Your task to perform on an android device: uninstall "Mercado Libre" Image 0: 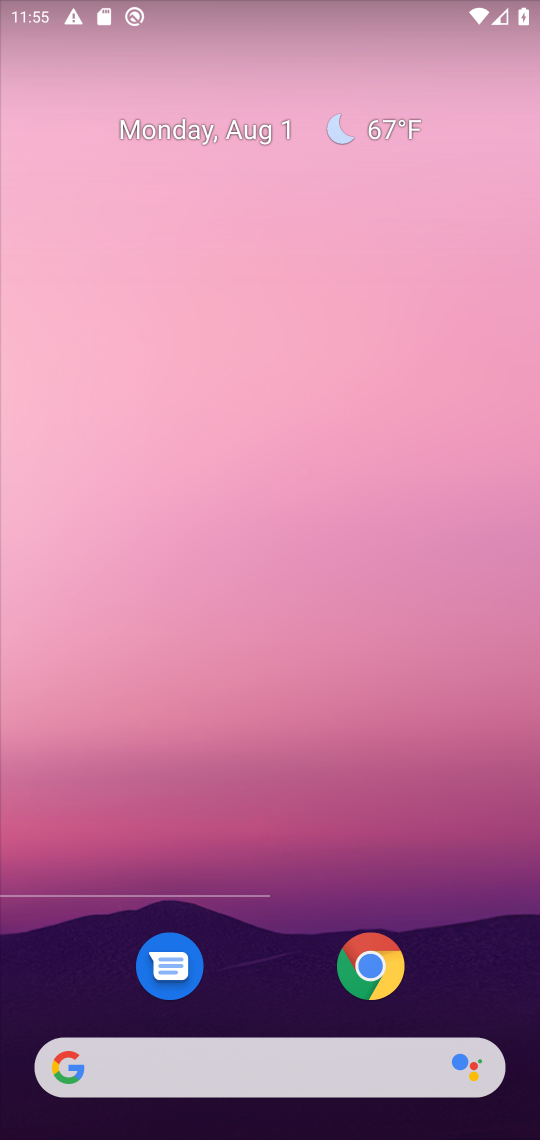
Step 0: press home button
Your task to perform on an android device: uninstall "Mercado Libre" Image 1: 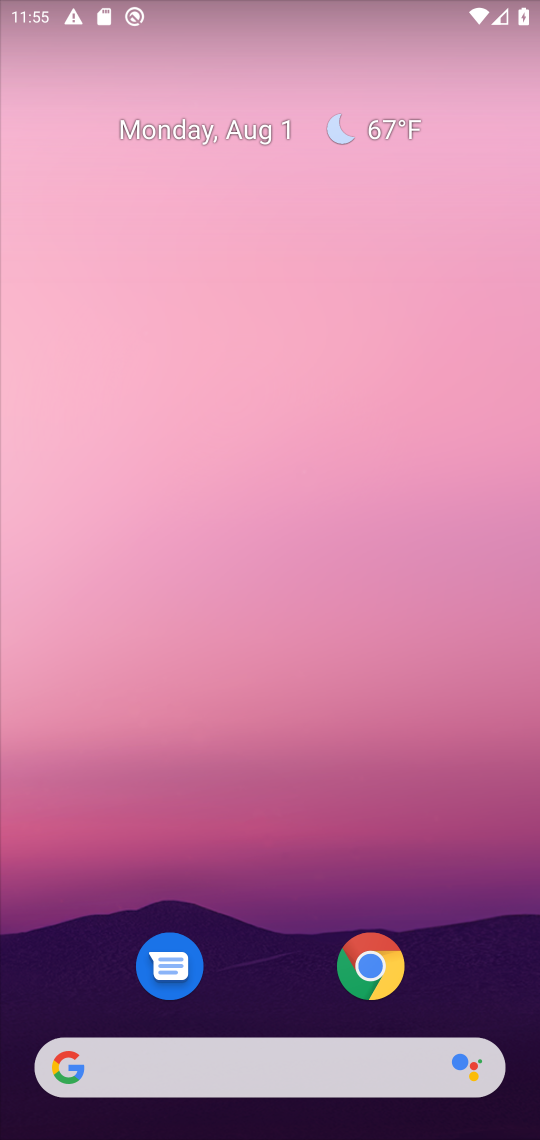
Step 1: drag from (448, 967) to (464, 100)
Your task to perform on an android device: uninstall "Mercado Libre" Image 2: 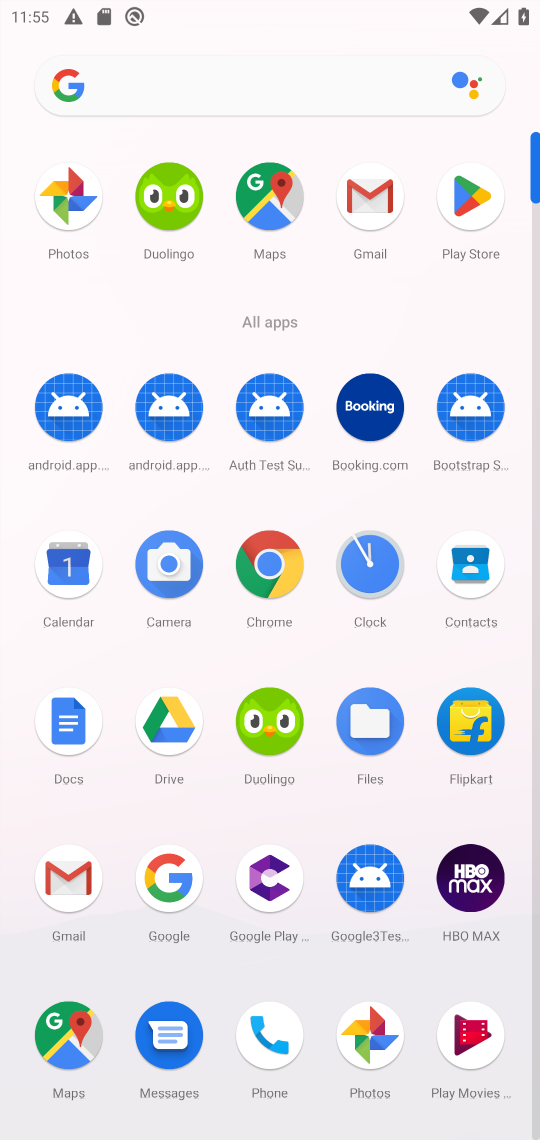
Step 2: click (462, 205)
Your task to perform on an android device: uninstall "Mercado Libre" Image 3: 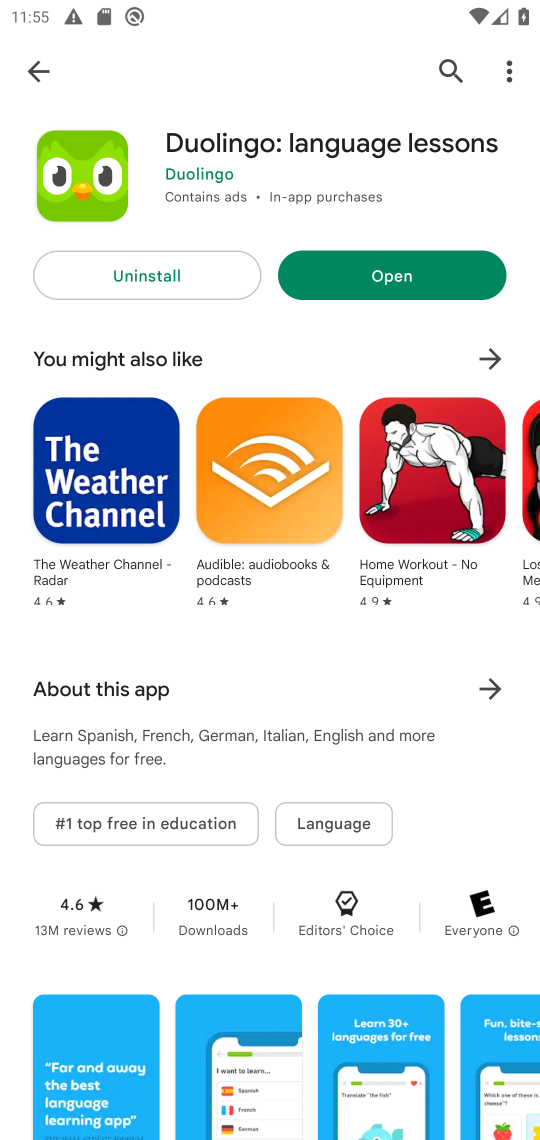
Step 3: click (448, 68)
Your task to perform on an android device: uninstall "Mercado Libre" Image 4: 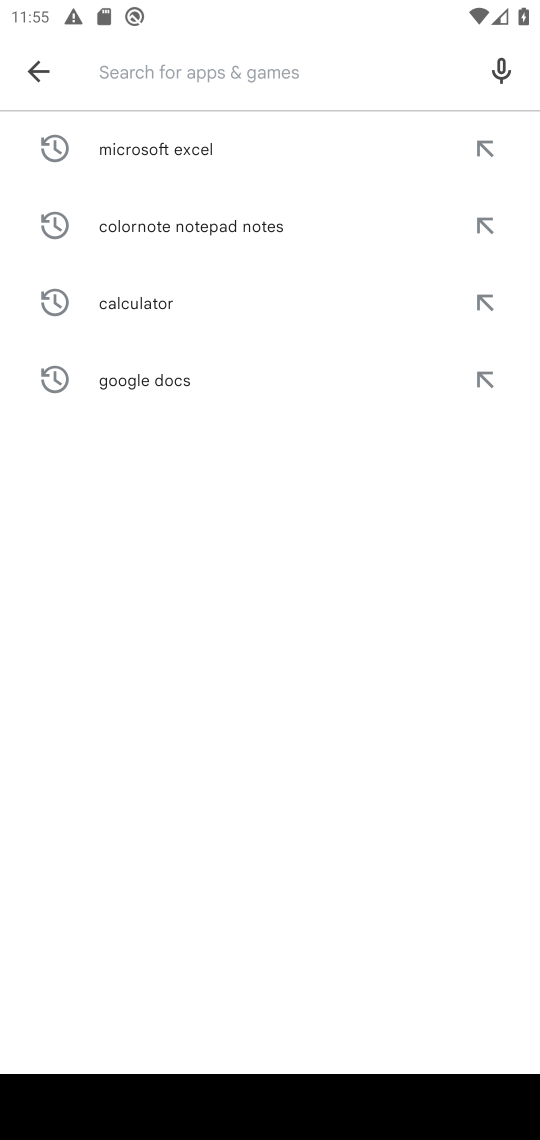
Step 4: click (342, 80)
Your task to perform on an android device: uninstall "Mercado Libre" Image 5: 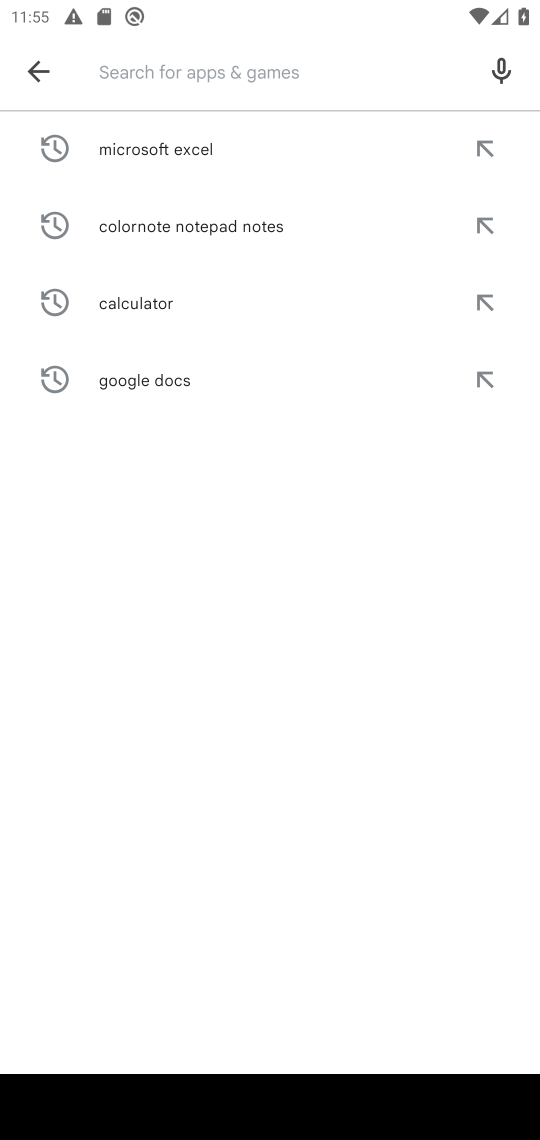
Step 5: type "Mercado Libre"
Your task to perform on an android device: uninstall "Mercado Libre" Image 6: 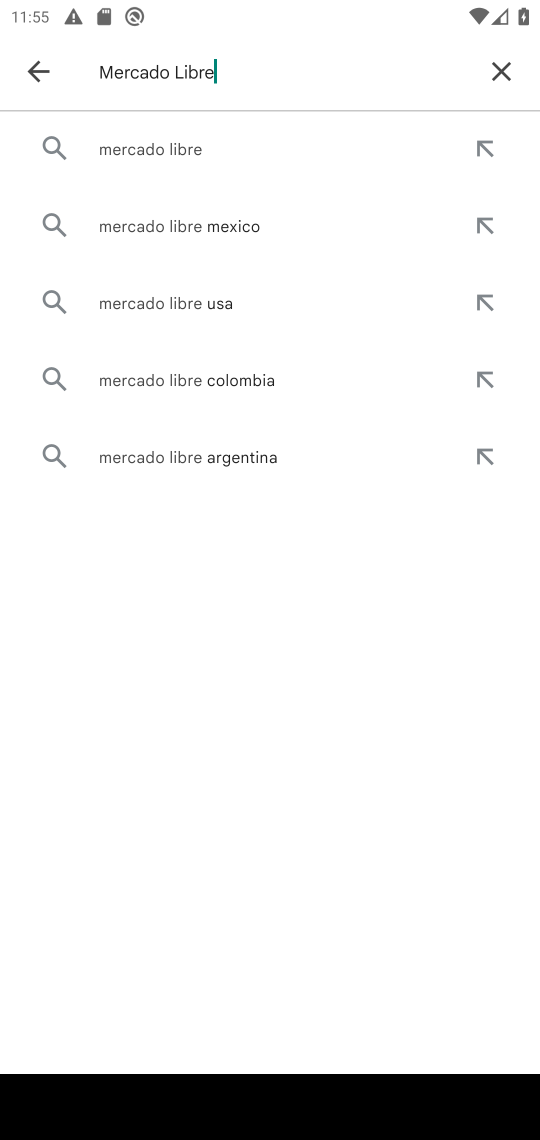
Step 6: click (222, 154)
Your task to perform on an android device: uninstall "Mercado Libre" Image 7: 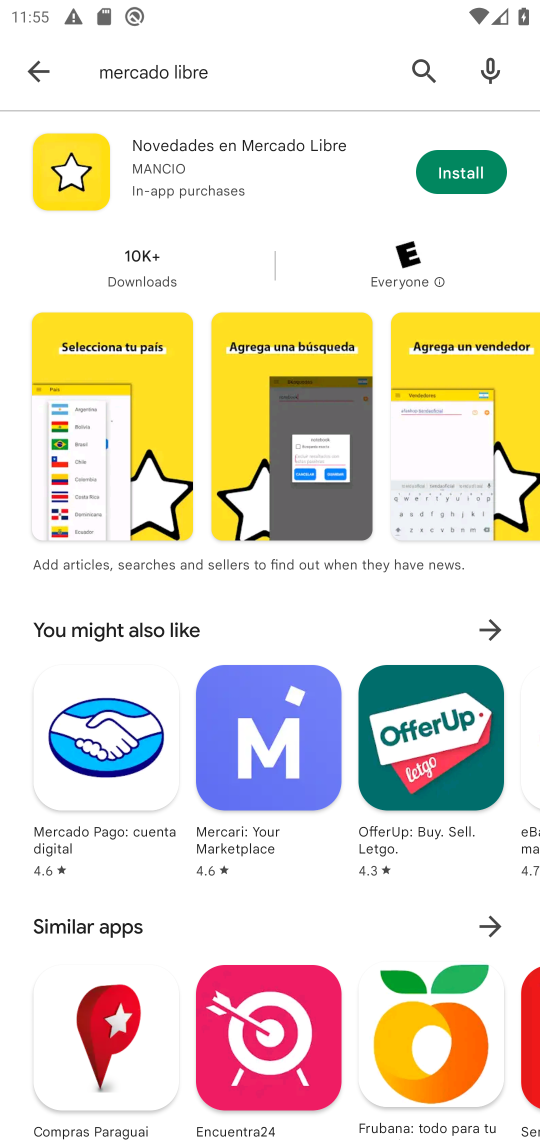
Step 7: task complete